Your task to perform on an android device: turn on priority inbox in the gmail app Image 0: 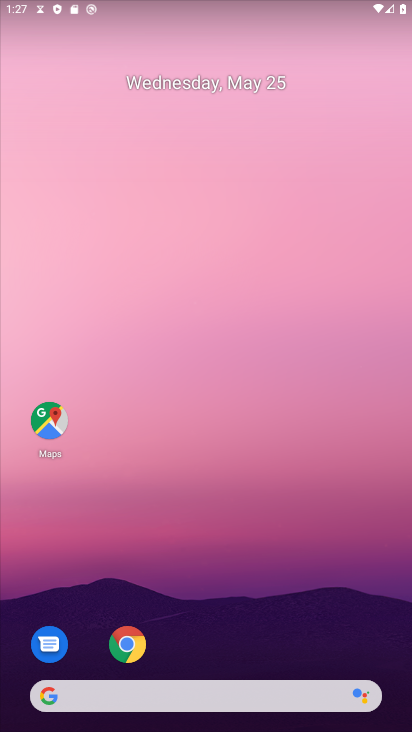
Step 0: drag from (215, 640) to (175, 236)
Your task to perform on an android device: turn on priority inbox in the gmail app Image 1: 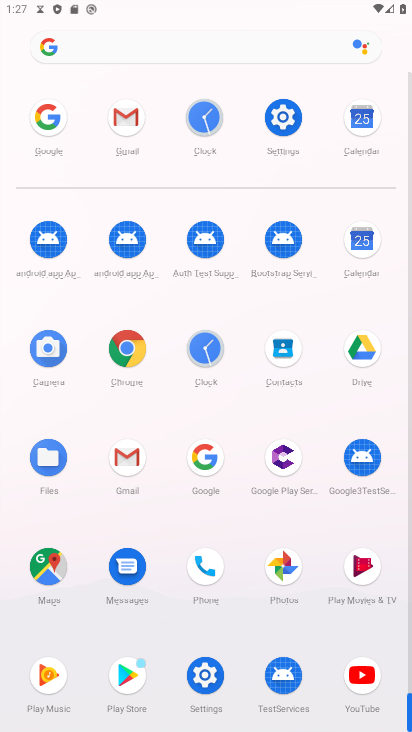
Step 1: click (134, 462)
Your task to perform on an android device: turn on priority inbox in the gmail app Image 2: 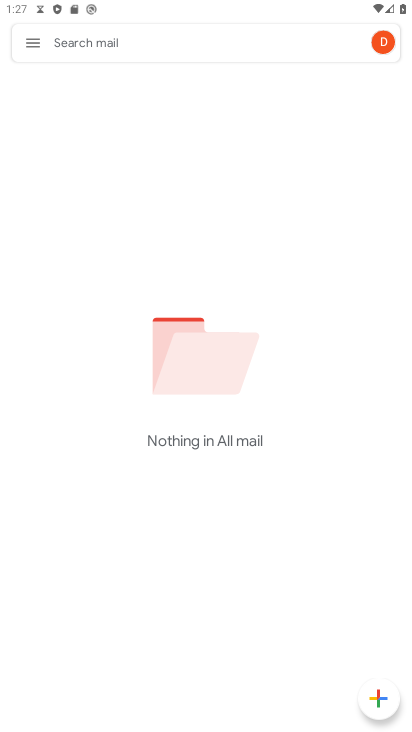
Step 2: click (29, 40)
Your task to perform on an android device: turn on priority inbox in the gmail app Image 3: 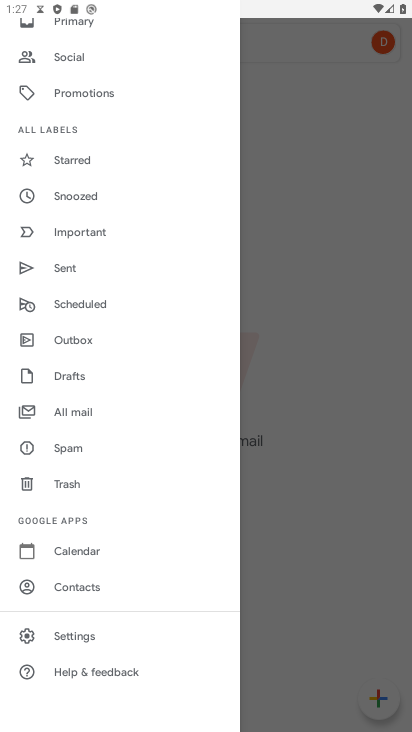
Step 3: click (73, 632)
Your task to perform on an android device: turn on priority inbox in the gmail app Image 4: 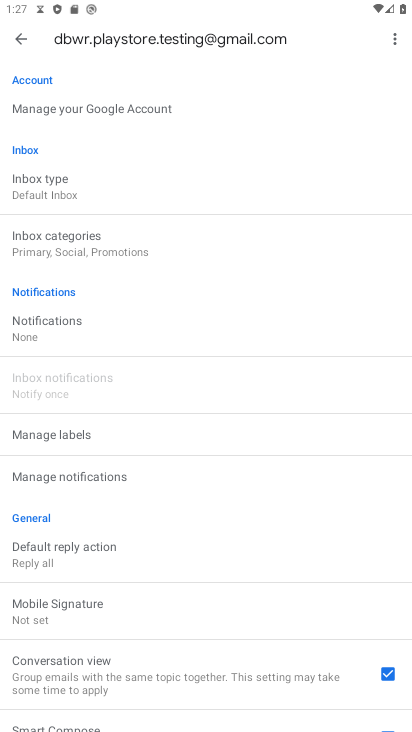
Step 4: click (57, 186)
Your task to perform on an android device: turn on priority inbox in the gmail app Image 5: 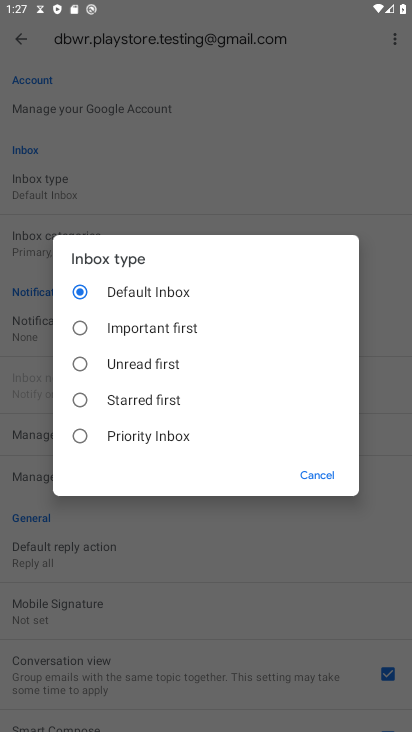
Step 5: click (85, 437)
Your task to perform on an android device: turn on priority inbox in the gmail app Image 6: 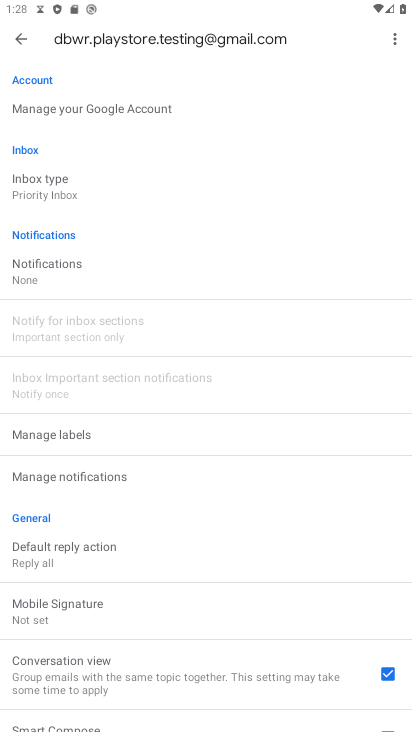
Step 6: task complete